Your task to perform on an android device: Open calendar and show me the second week of next month Image 0: 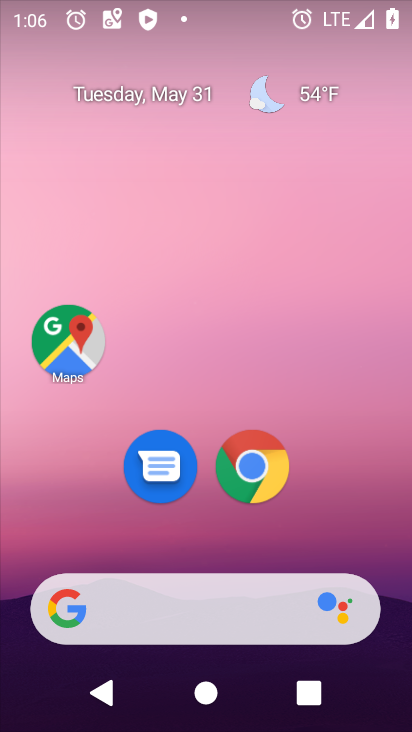
Step 0: drag from (226, 597) to (96, 4)
Your task to perform on an android device: Open calendar and show me the second week of next month Image 1: 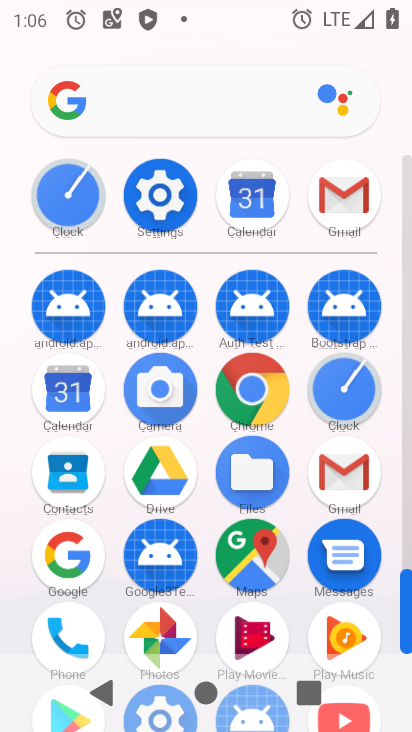
Step 1: click (78, 484)
Your task to perform on an android device: Open calendar and show me the second week of next month Image 2: 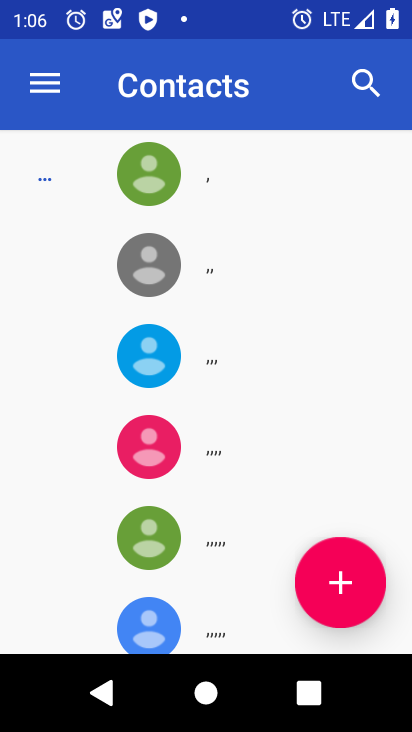
Step 2: press home button
Your task to perform on an android device: Open calendar and show me the second week of next month Image 3: 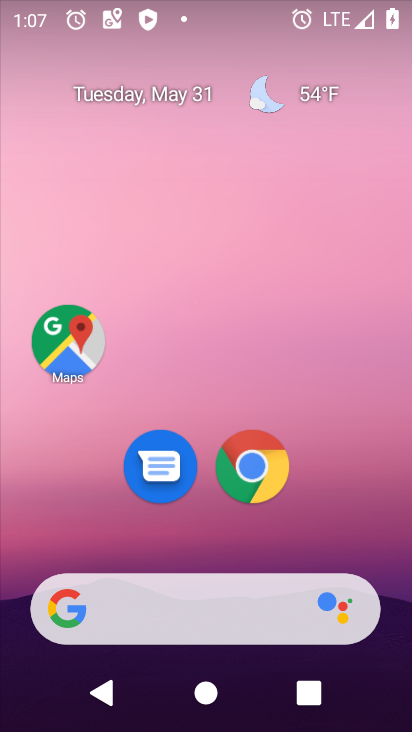
Step 3: drag from (135, 616) to (106, 170)
Your task to perform on an android device: Open calendar and show me the second week of next month Image 4: 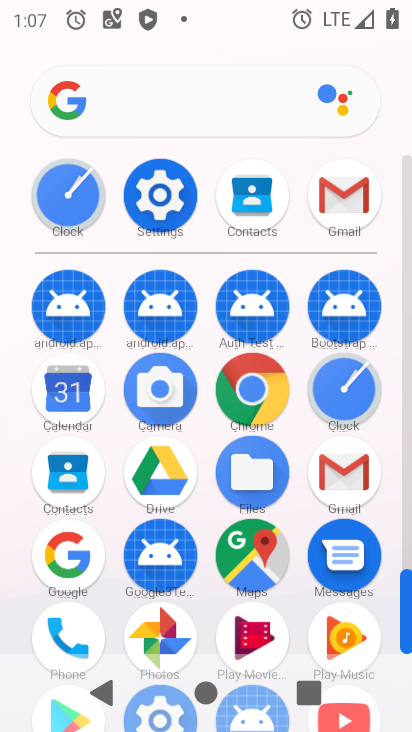
Step 4: click (62, 383)
Your task to perform on an android device: Open calendar and show me the second week of next month Image 5: 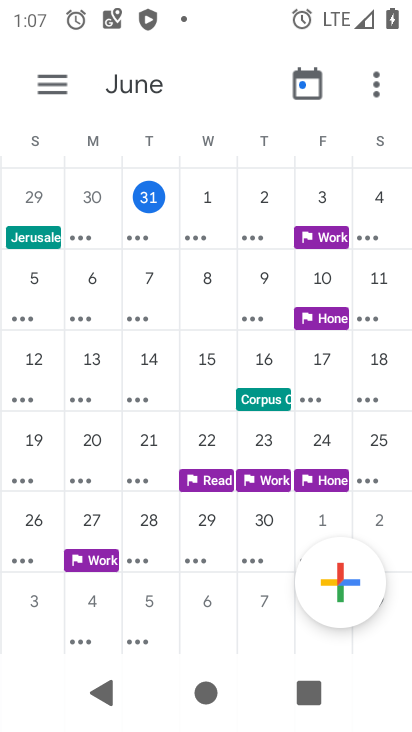
Step 5: task complete